Your task to perform on an android device: Open wifi settings Image 0: 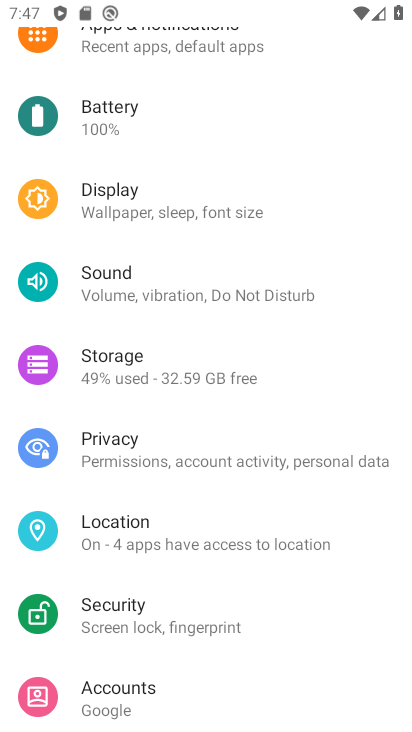
Step 0: drag from (257, 305) to (337, 556)
Your task to perform on an android device: Open wifi settings Image 1: 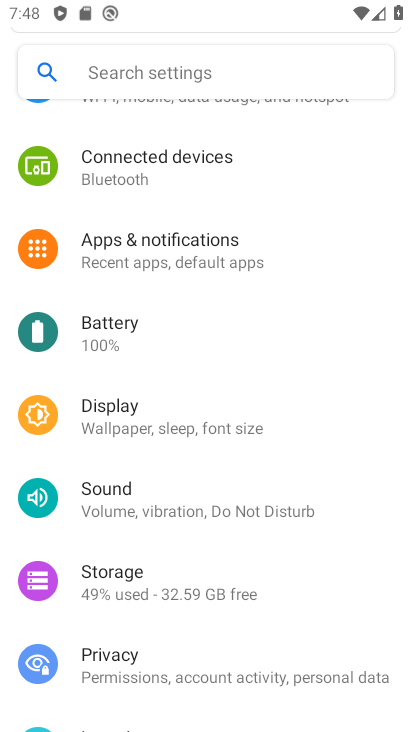
Step 1: drag from (211, 149) to (351, 501)
Your task to perform on an android device: Open wifi settings Image 2: 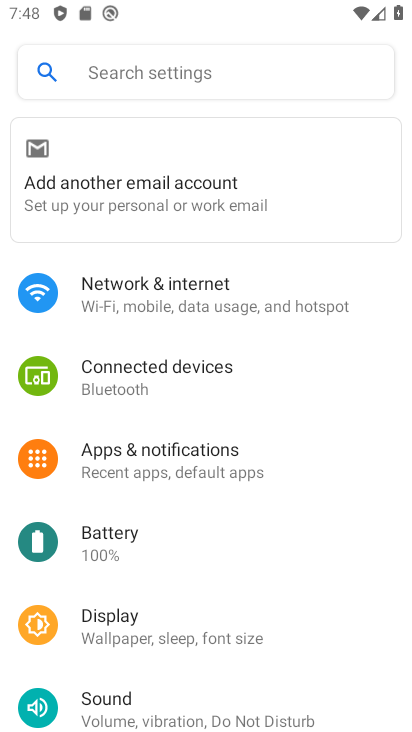
Step 2: click (249, 311)
Your task to perform on an android device: Open wifi settings Image 3: 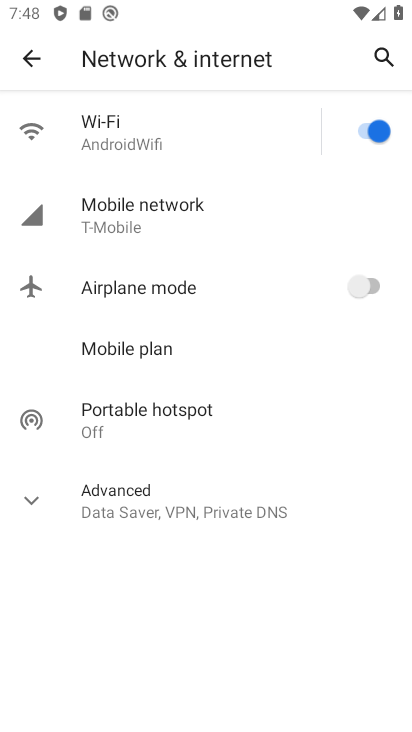
Step 3: click (193, 134)
Your task to perform on an android device: Open wifi settings Image 4: 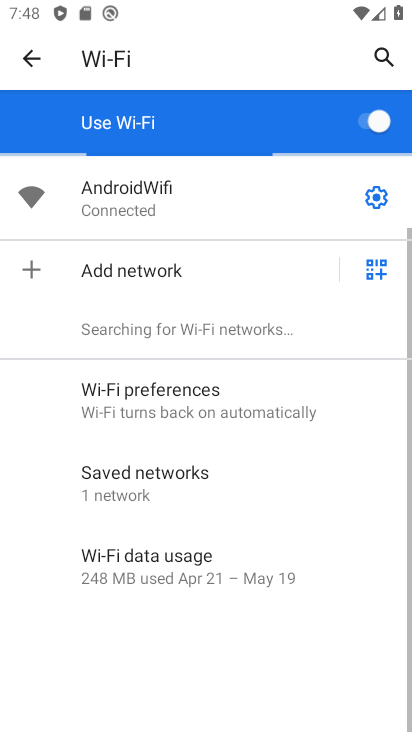
Step 4: task complete